Your task to perform on an android device: turn on sleep mode Image 0: 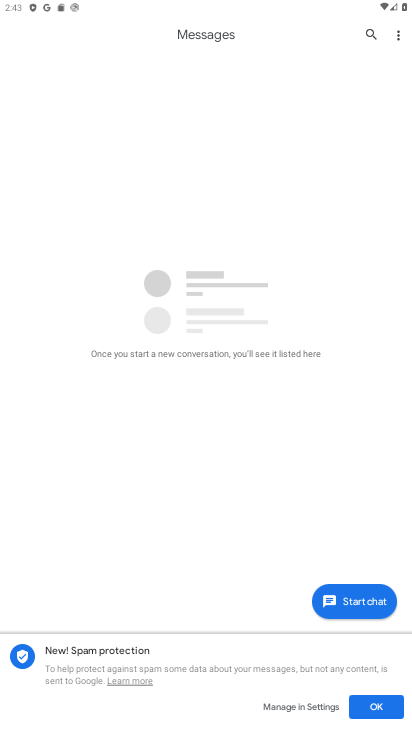
Step 0: press home button
Your task to perform on an android device: turn on sleep mode Image 1: 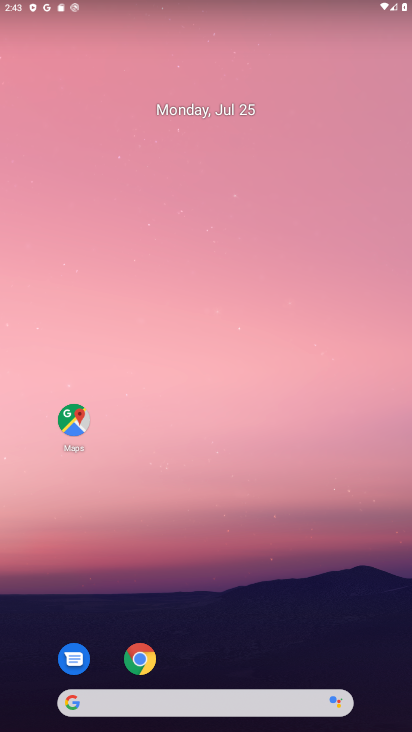
Step 1: drag from (222, 678) to (149, 9)
Your task to perform on an android device: turn on sleep mode Image 2: 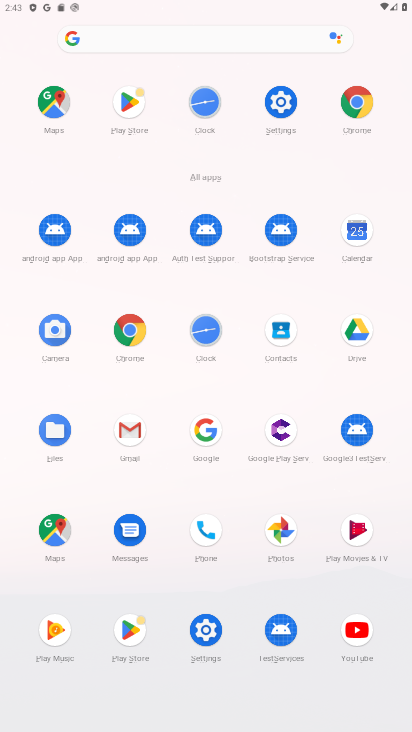
Step 2: click (280, 94)
Your task to perform on an android device: turn on sleep mode Image 3: 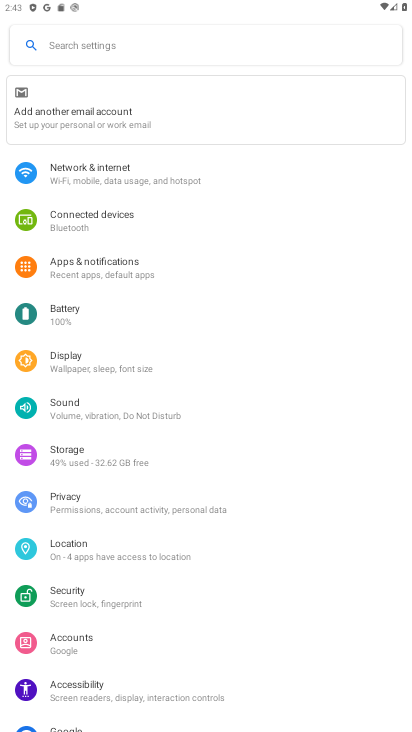
Step 3: drag from (161, 440) to (158, 170)
Your task to perform on an android device: turn on sleep mode Image 4: 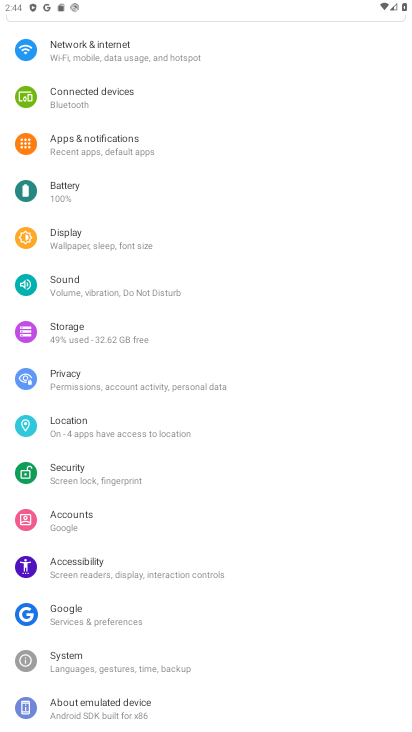
Step 4: click (64, 228)
Your task to perform on an android device: turn on sleep mode Image 5: 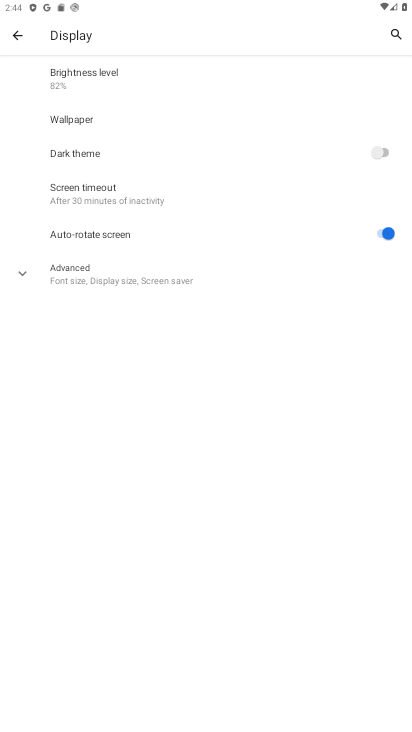
Step 5: task complete